Your task to perform on an android device: turn on airplane mode Image 0: 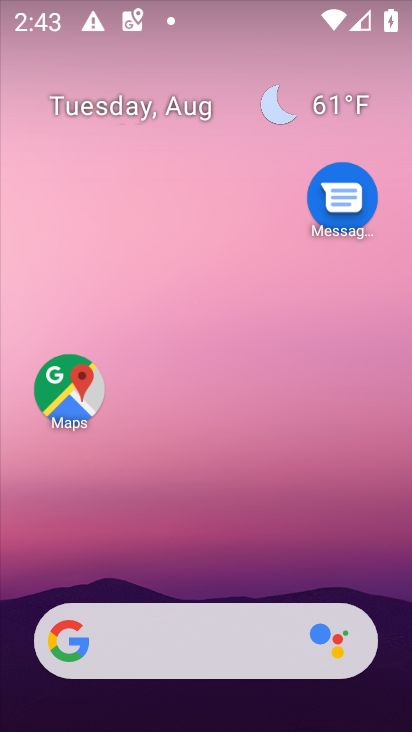
Step 0: drag from (256, 576) to (217, 73)
Your task to perform on an android device: turn on airplane mode Image 1: 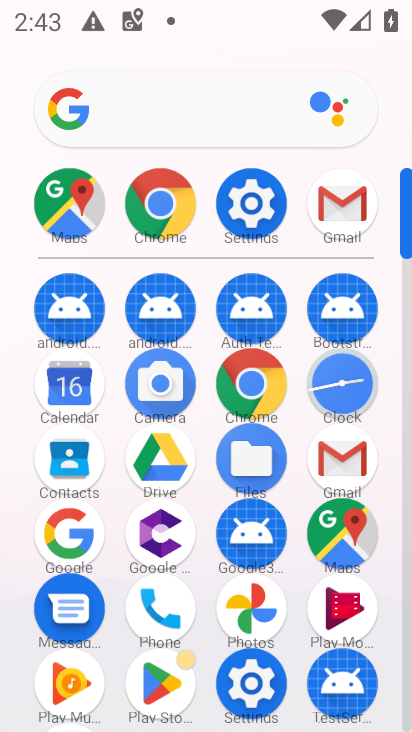
Step 1: click (258, 196)
Your task to perform on an android device: turn on airplane mode Image 2: 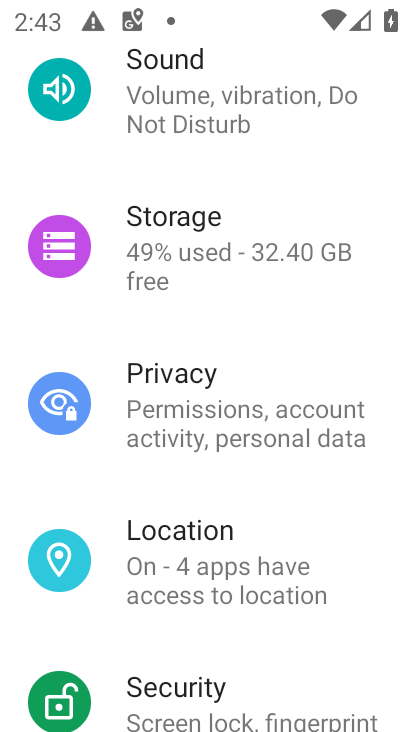
Step 2: drag from (237, 276) to (279, 681)
Your task to perform on an android device: turn on airplane mode Image 3: 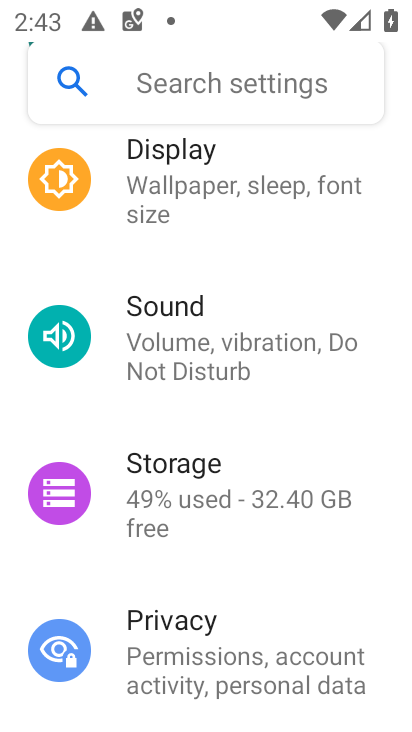
Step 3: drag from (254, 290) to (331, 728)
Your task to perform on an android device: turn on airplane mode Image 4: 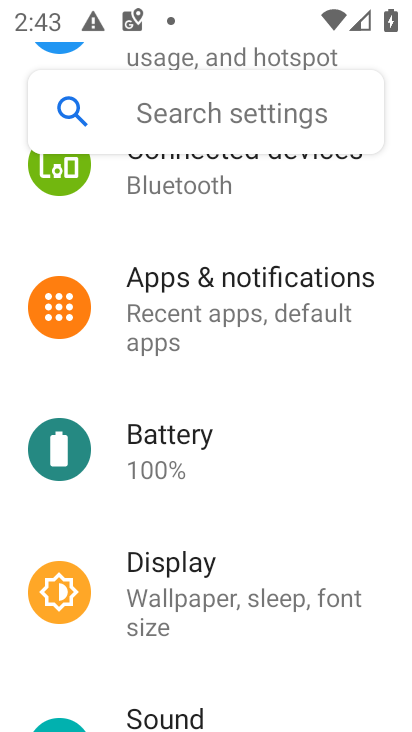
Step 4: drag from (313, 369) to (213, 678)
Your task to perform on an android device: turn on airplane mode Image 5: 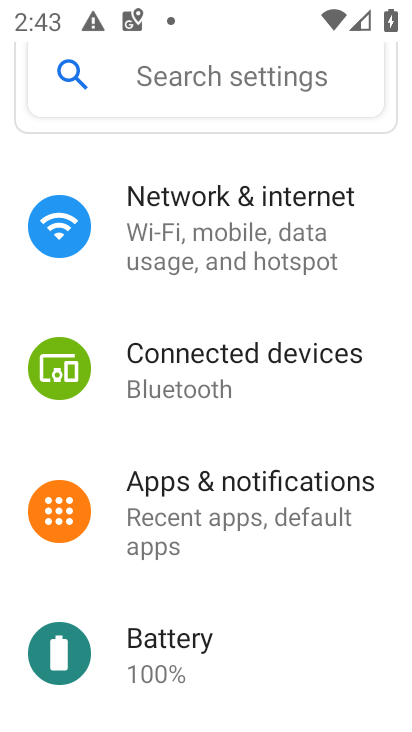
Step 5: click (221, 277)
Your task to perform on an android device: turn on airplane mode Image 6: 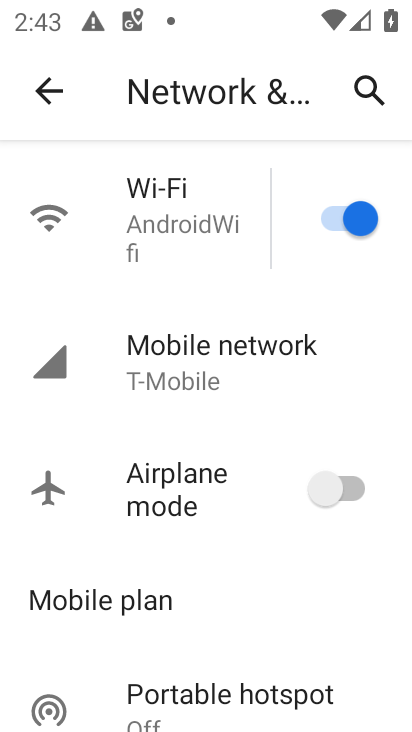
Step 6: click (310, 498)
Your task to perform on an android device: turn on airplane mode Image 7: 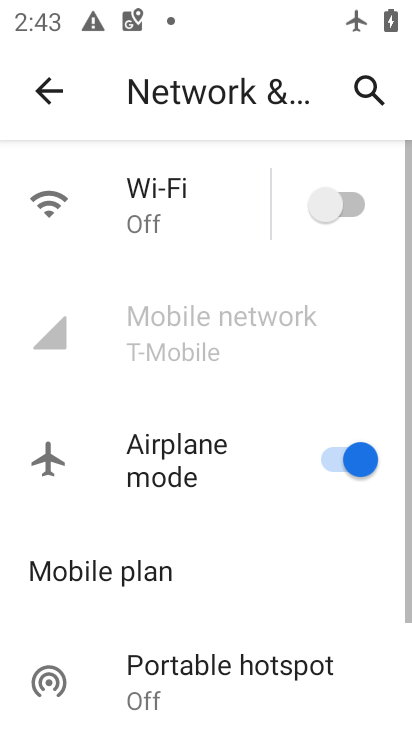
Step 7: click (323, 197)
Your task to perform on an android device: turn on airplane mode Image 8: 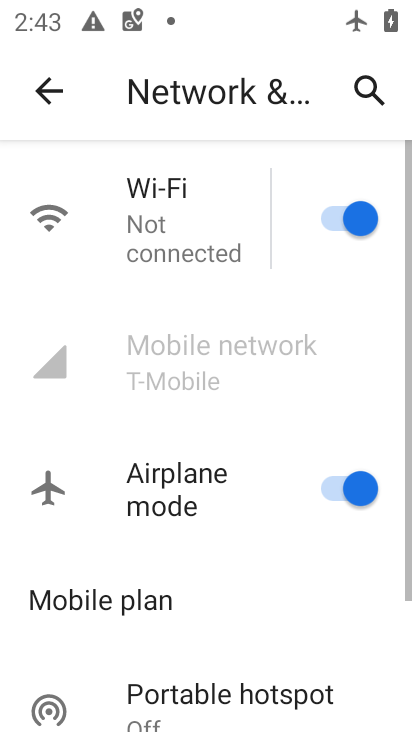
Step 8: task complete